Your task to perform on an android device: View the shopping cart on target. Add "logitech g pro" to the cart on target, then select checkout. Image 0: 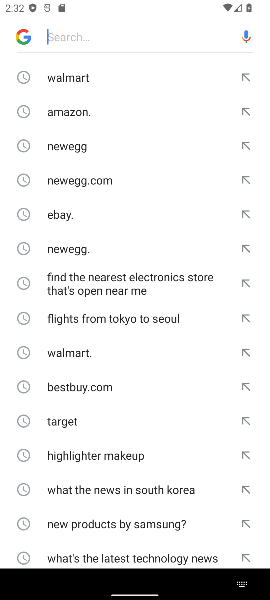
Step 0: type "target"
Your task to perform on an android device: View the shopping cart on target. Add "logitech g pro" to the cart on target, then select checkout. Image 1: 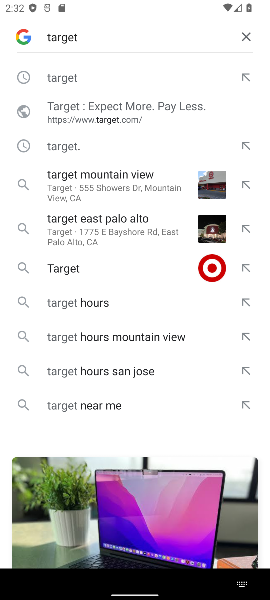
Step 1: click (84, 85)
Your task to perform on an android device: View the shopping cart on target. Add "logitech g pro" to the cart on target, then select checkout. Image 2: 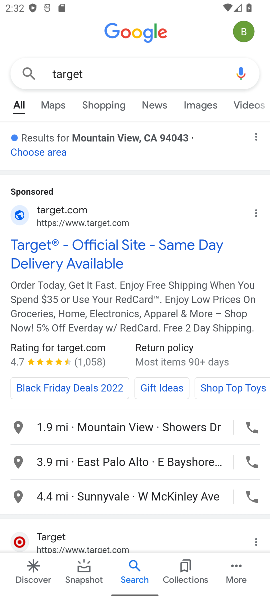
Step 2: click (84, 85)
Your task to perform on an android device: View the shopping cart on target. Add "logitech g pro" to the cart on target, then select checkout. Image 3: 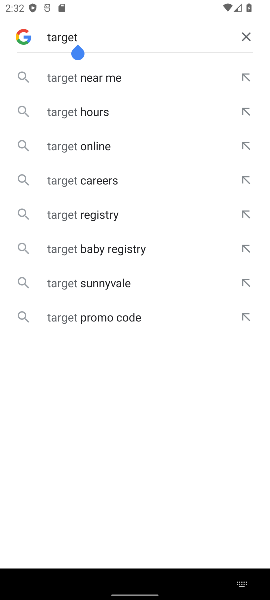
Step 3: click (115, 240)
Your task to perform on an android device: View the shopping cart on target. Add "logitech g pro" to the cart on target, then select checkout. Image 4: 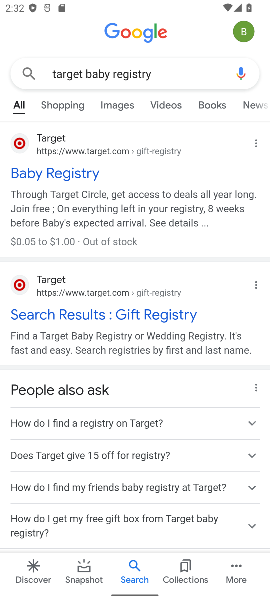
Step 4: click (62, 181)
Your task to perform on an android device: View the shopping cart on target. Add "logitech g pro" to the cart on target, then select checkout. Image 5: 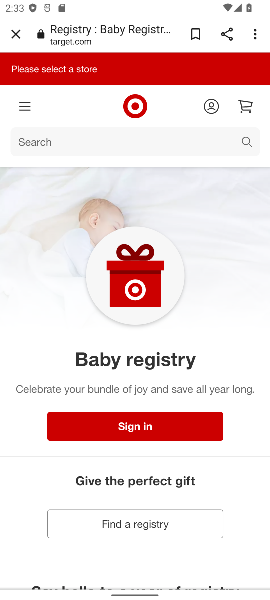
Step 5: click (153, 149)
Your task to perform on an android device: View the shopping cart on target. Add "logitech g pro" to the cart on target, then select checkout. Image 6: 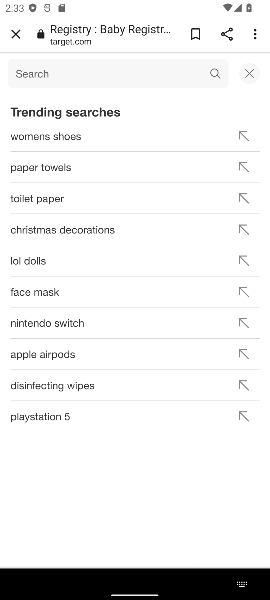
Step 6: type "logitech g pro"
Your task to perform on an android device: View the shopping cart on target. Add "logitech g pro" to the cart on target, then select checkout. Image 7: 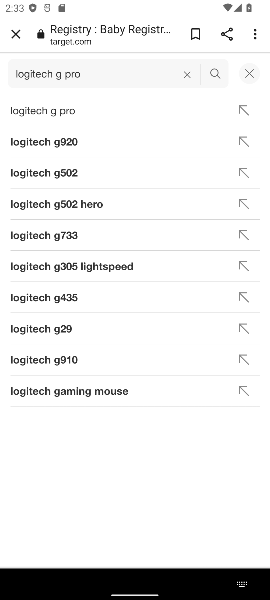
Step 7: click (99, 113)
Your task to perform on an android device: View the shopping cart on target. Add "logitech g pro" to the cart on target, then select checkout. Image 8: 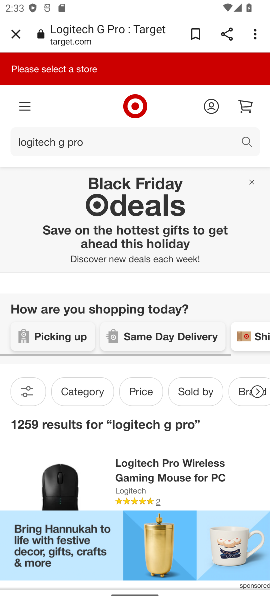
Step 8: drag from (160, 446) to (191, 352)
Your task to perform on an android device: View the shopping cart on target. Add "logitech g pro" to the cart on target, then select checkout. Image 9: 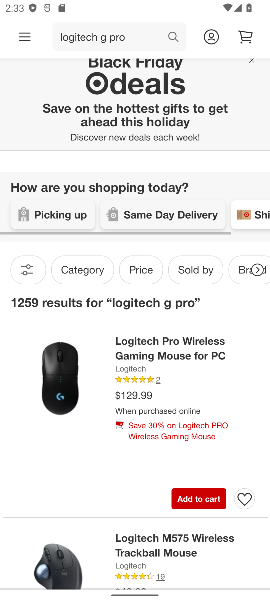
Step 9: click (93, 373)
Your task to perform on an android device: View the shopping cart on target. Add "logitech g pro" to the cart on target, then select checkout. Image 10: 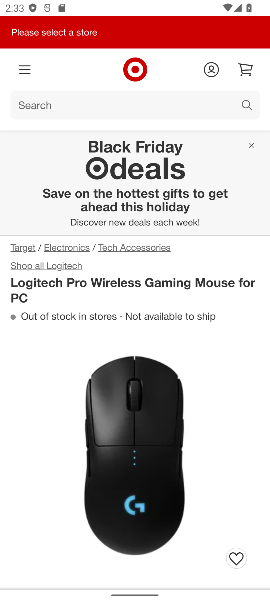
Step 10: drag from (182, 480) to (236, 283)
Your task to perform on an android device: View the shopping cart on target. Add "logitech g pro" to the cart on target, then select checkout. Image 11: 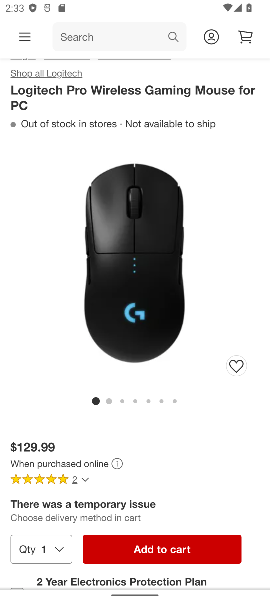
Step 11: click (190, 543)
Your task to perform on an android device: View the shopping cart on target. Add "logitech g pro" to the cart on target, then select checkout. Image 12: 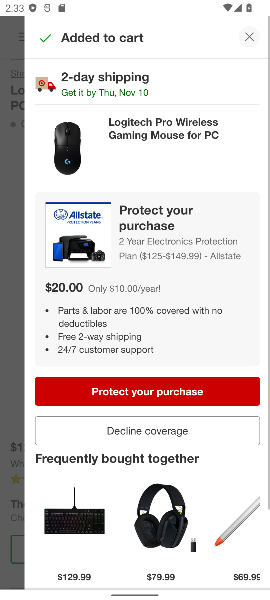
Step 12: task complete